Your task to perform on an android device: toggle show notifications on the lock screen Image 0: 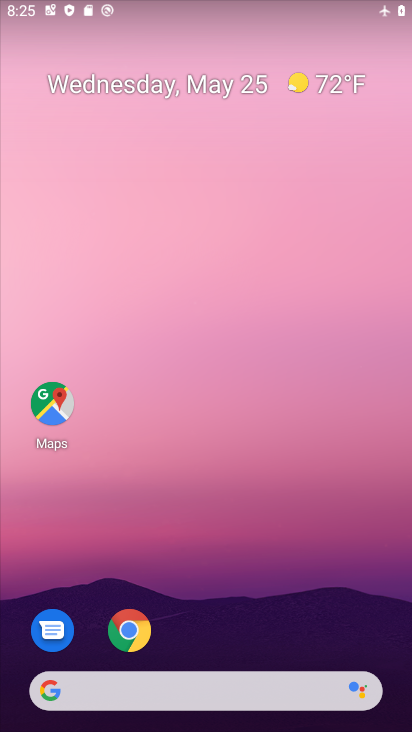
Step 0: drag from (258, 639) to (285, 272)
Your task to perform on an android device: toggle show notifications on the lock screen Image 1: 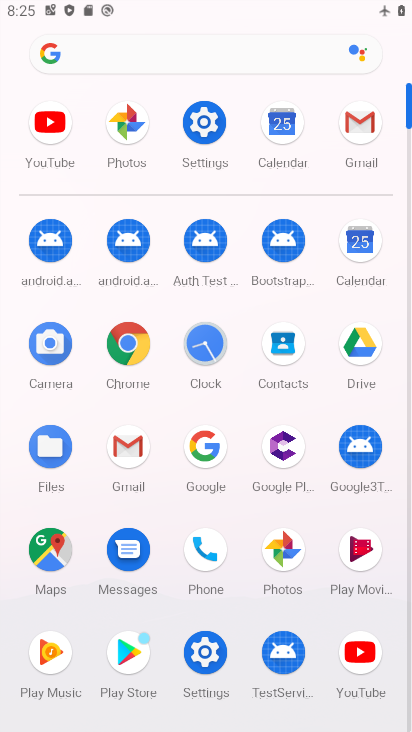
Step 1: click (219, 112)
Your task to perform on an android device: toggle show notifications on the lock screen Image 2: 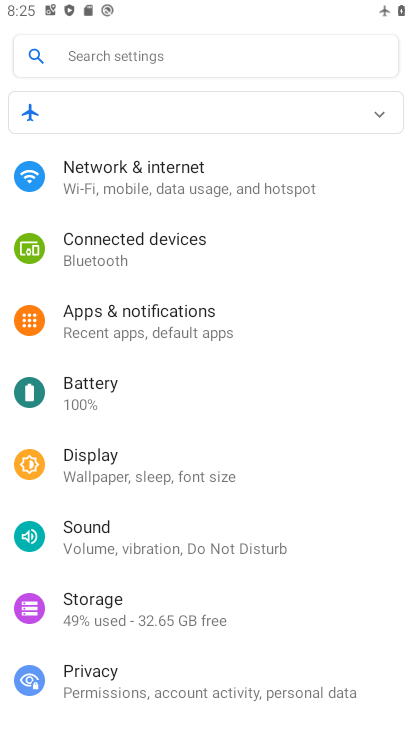
Step 2: click (147, 330)
Your task to perform on an android device: toggle show notifications on the lock screen Image 3: 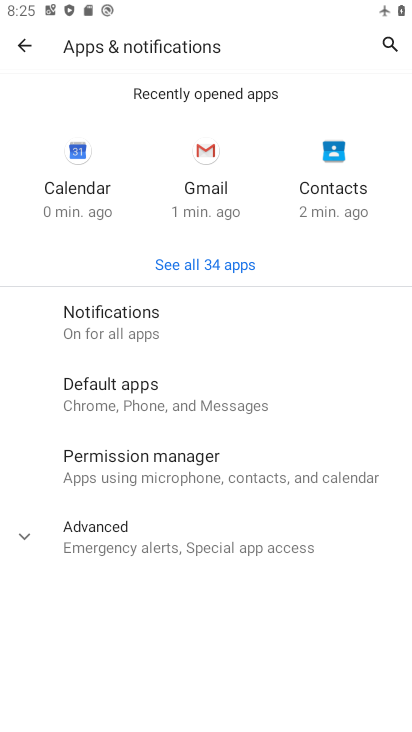
Step 3: click (147, 330)
Your task to perform on an android device: toggle show notifications on the lock screen Image 4: 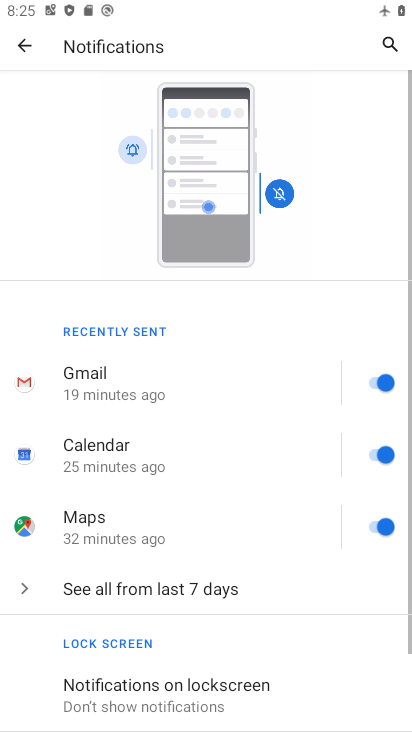
Step 4: drag from (222, 667) to (222, 421)
Your task to perform on an android device: toggle show notifications on the lock screen Image 5: 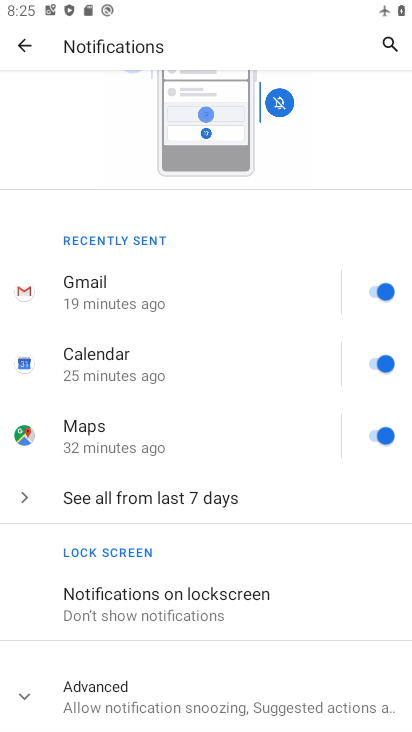
Step 5: click (204, 588)
Your task to perform on an android device: toggle show notifications on the lock screen Image 6: 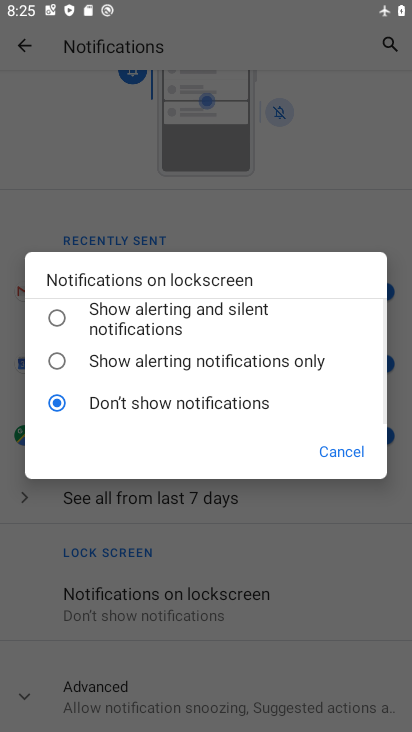
Step 6: click (140, 305)
Your task to perform on an android device: toggle show notifications on the lock screen Image 7: 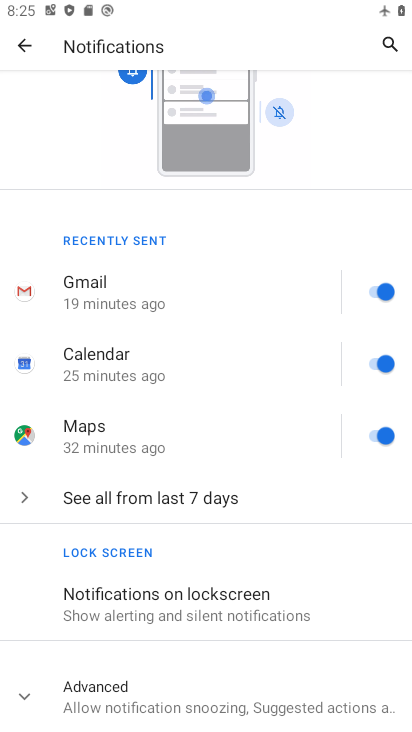
Step 7: task complete